Your task to perform on an android device: Open network settings Image 0: 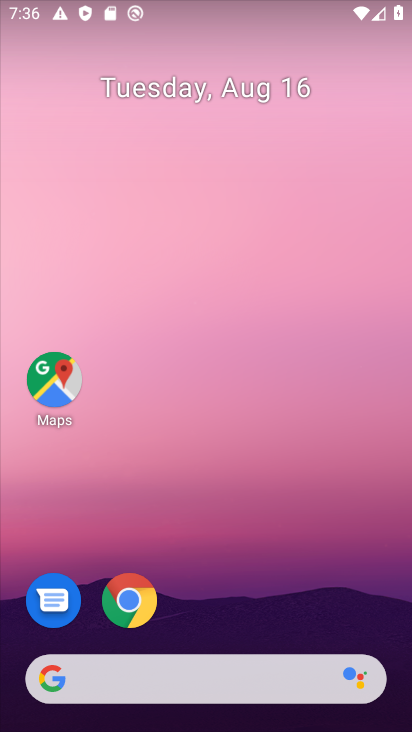
Step 0: drag from (219, 705) to (300, 49)
Your task to perform on an android device: Open network settings Image 1: 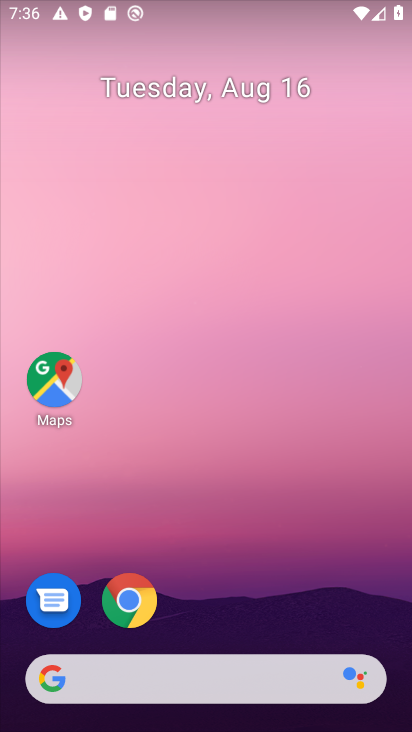
Step 1: drag from (190, 670) to (231, 5)
Your task to perform on an android device: Open network settings Image 2: 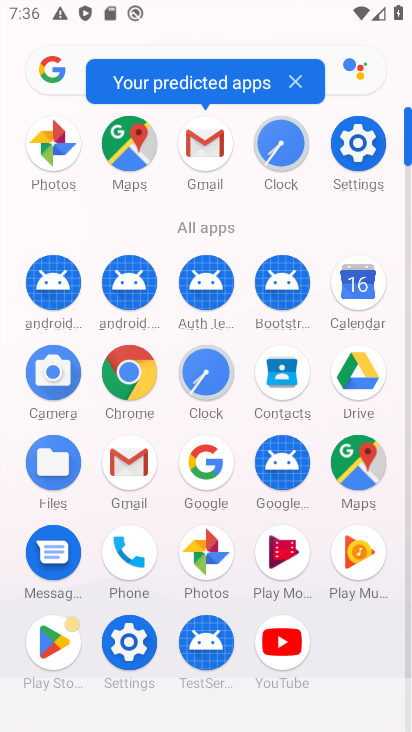
Step 2: click (369, 131)
Your task to perform on an android device: Open network settings Image 3: 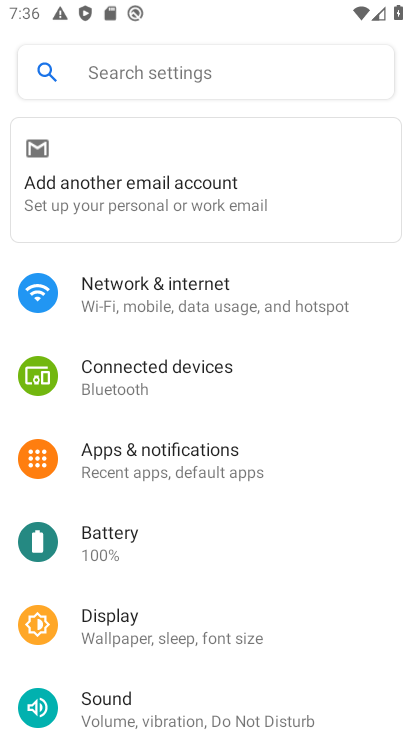
Step 3: click (165, 274)
Your task to perform on an android device: Open network settings Image 4: 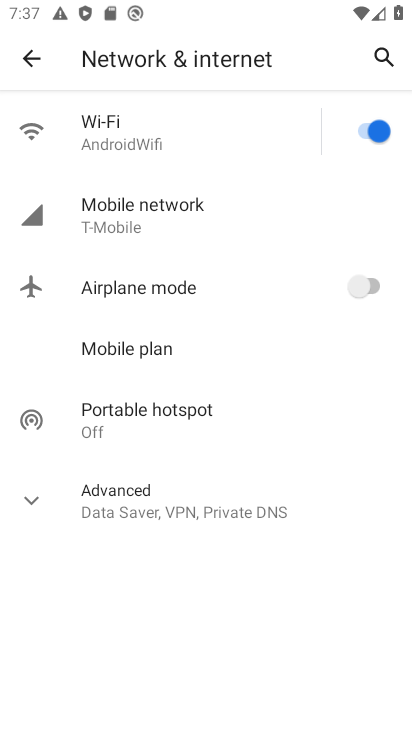
Step 4: task complete